Your task to perform on an android device: Search for the best value 4K TV on Best Buy Image 0: 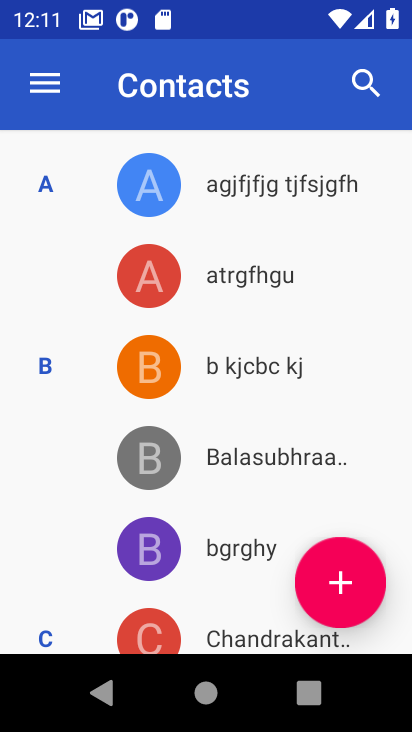
Step 0: click (366, 86)
Your task to perform on an android device: Search for the best value 4K TV on Best Buy Image 1: 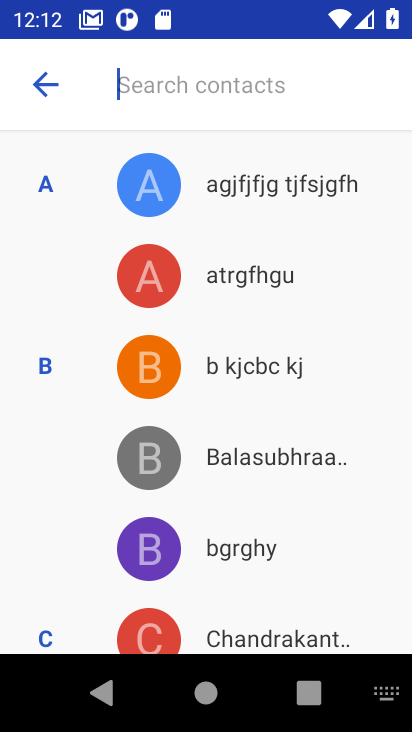
Step 1: press home button
Your task to perform on an android device: Search for the best value 4K TV on Best Buy Image 2: 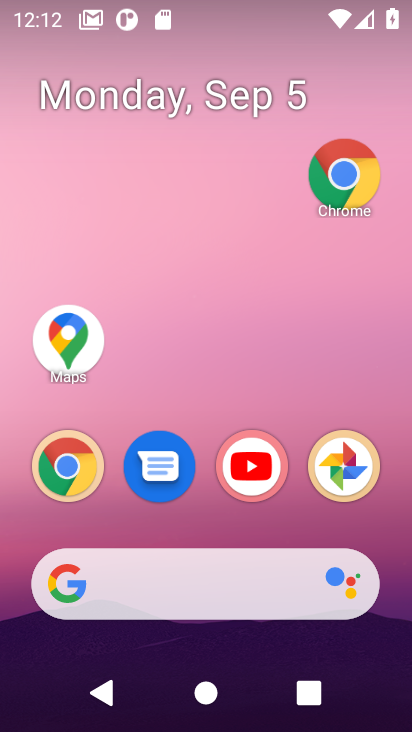
Step 2: click (332, 177)
Your task to perform on an android device: Search for the best value 4K TV on Best Buy Image 3: 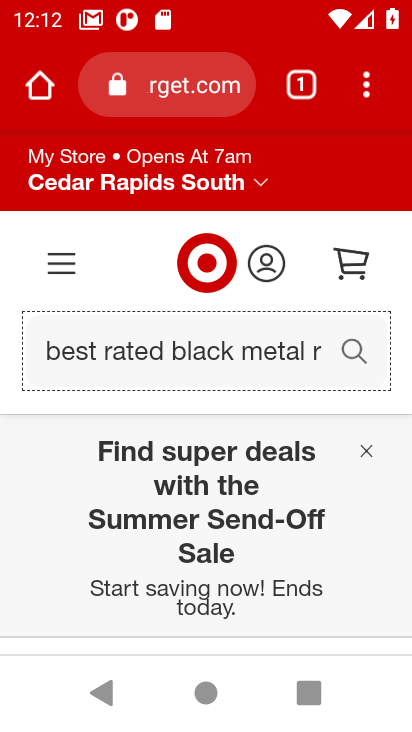
Step 3: press home button
Your task to perform on an android device: Search for the best value 4K TV on Best Buy Image 4: 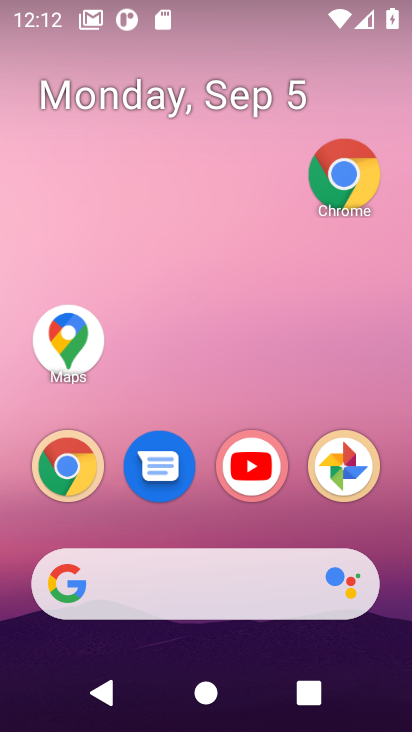
Step 4: drag from (292, 521) to (211, 39)
Your task to perform on an android device: Search for the best value 4K TV on Best Buy Image 5: 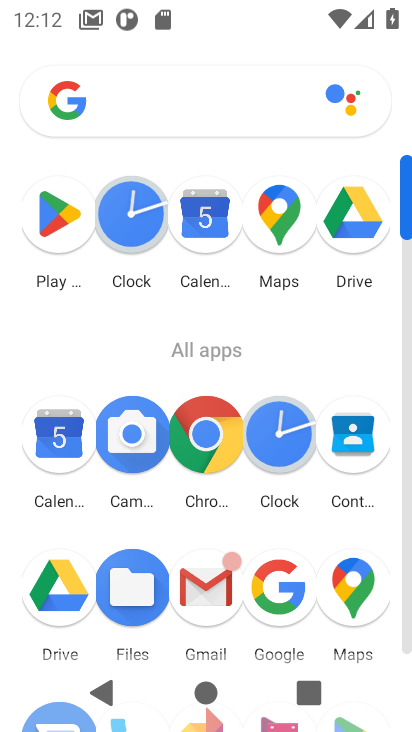
Step 5: click (216, 439)
Your task to perform on an android device: Search for the best value 4K TV on Best Buy Image 6: 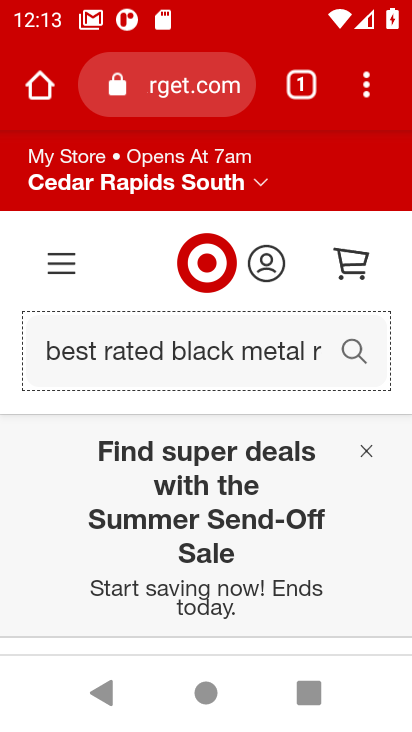
Step 6: press back button
Your task to perform on an android device: Search for the best value 4K TV on Best Buy Image 7: 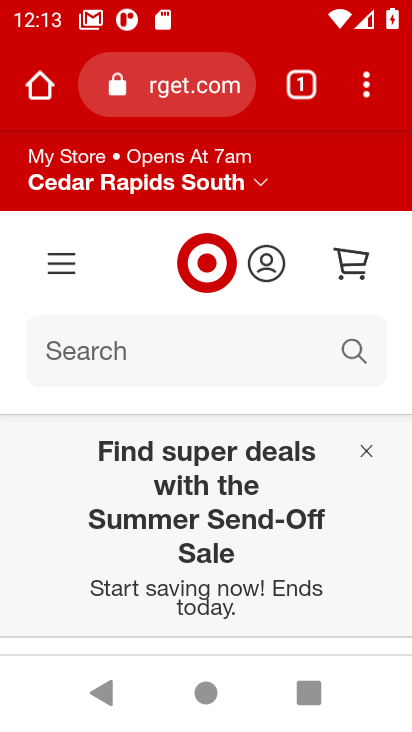
Step 7: click (194, 95)
Your task to perform on an android device: Search for the best value 4K TV on Best Buy Image 8: 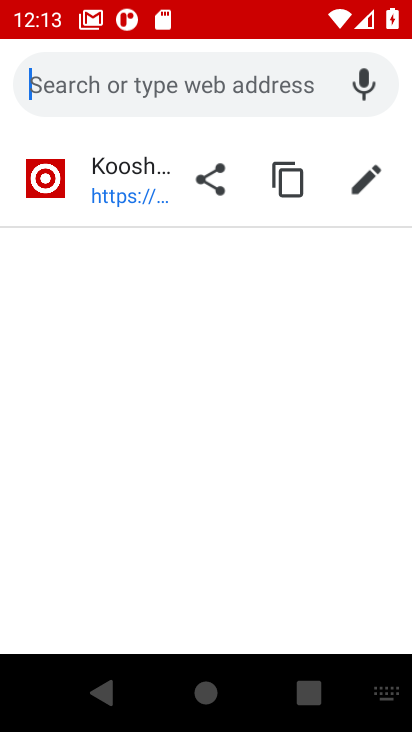
Step 8: type "Best Buy"
Your task to perform on an android device: Search for the best value 4K TV on Best Buy Image 9: 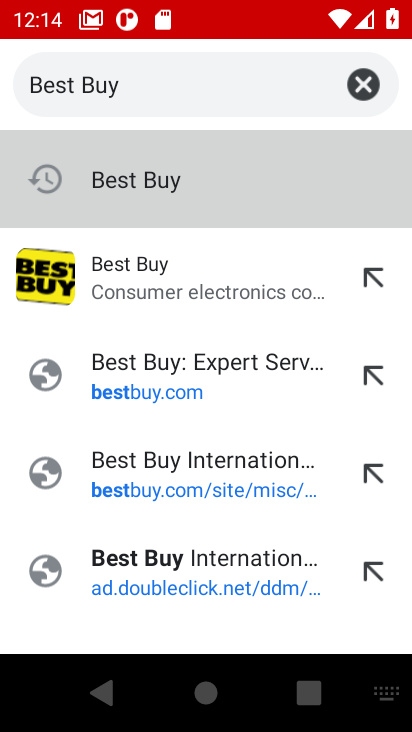
Step 9: click (133, 175)
Your task to perform on an android device: Search for the best value 4K TV on Best Buy Image 10: 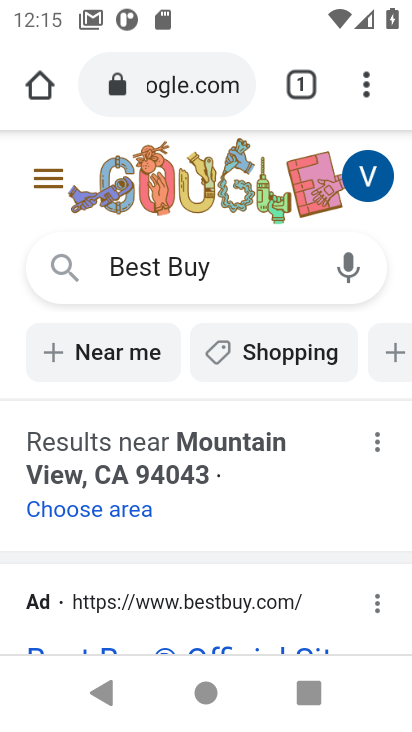
Step 10: drag from (198, 574) to (207, 121)
Your task to perform on an android device: Search for the best value 4K TV on Best Buy Image 11: 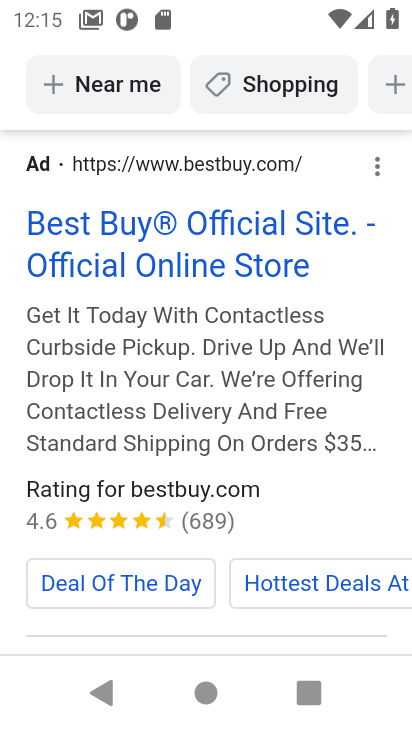
Step 11: click (114, 224)
Your task to perform on an android device: Search for the best value 4K TV on Best Buy Image 12: 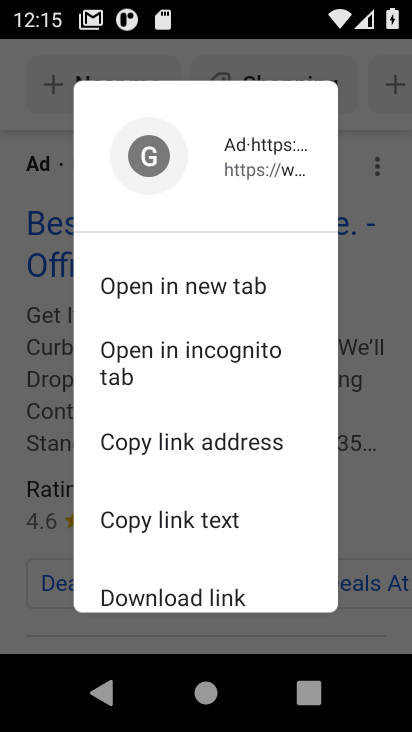
Step 12: click (256, 280)
Your task to perform on an android device: Search for the best value 4K TV on Best Buy Image 13: 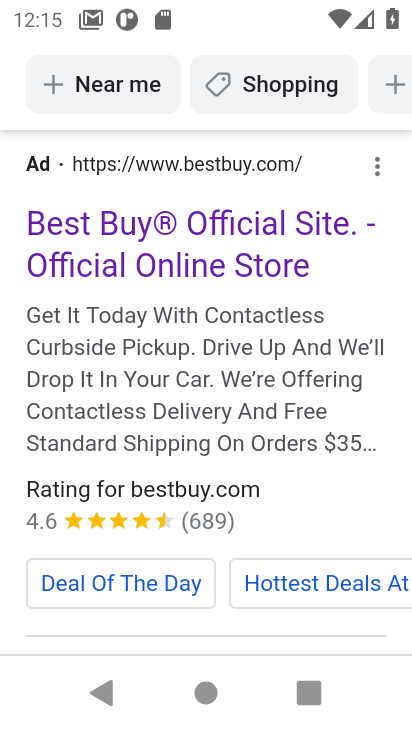
Step 13: click (70, 212)
Your task to perform on an android device: Search for the best value 4K TV on Best Buy Image 14: 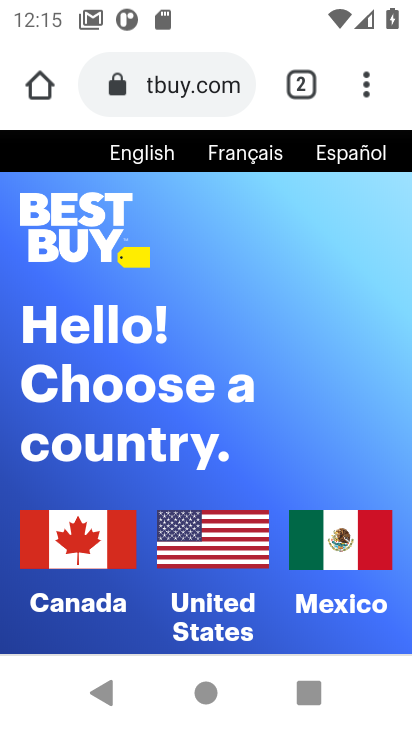
Step 14: click (165, 86)
Your task to perform on an android device: Search for the best value 4K TV on Best Buy Image 15: 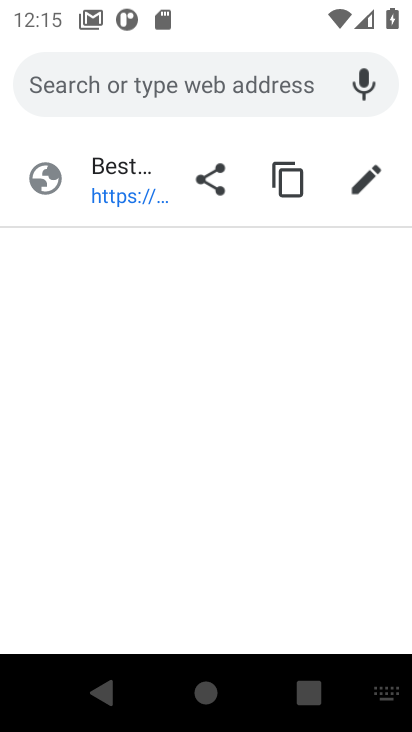
Step 15: press back button
Your task to perform on an android device: Search for the best value 4K TV on Best Buy Image 16: 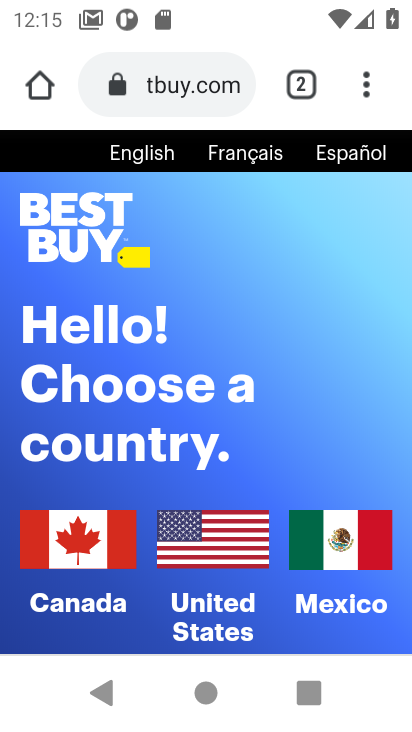
Step 16: click (389, 149)
Your task to perform on an android device: Search for the best value 4K TV on Best Buy Image 17: 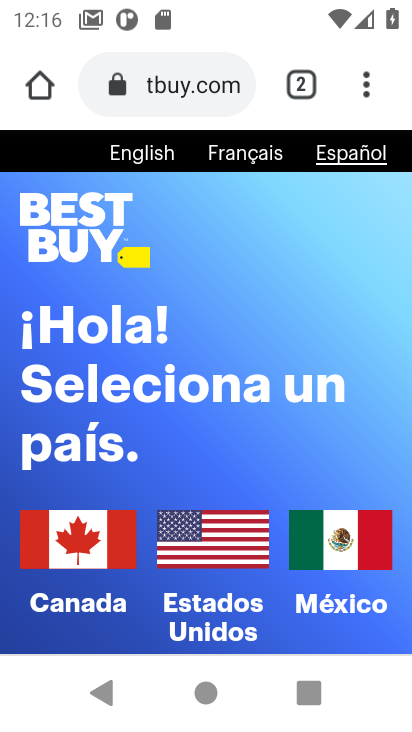
Step 17: task complete